Your task to perform on an android device: When is my next appointment? Image 0: 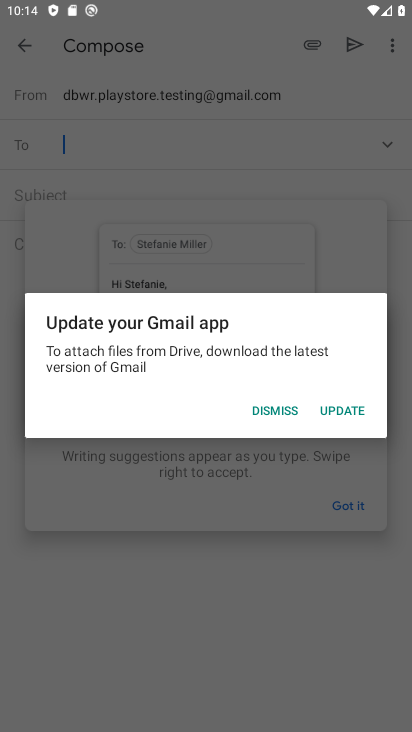
Step 0: press home button
Your task to perform on an android device: When is my next appointment? Image 1: 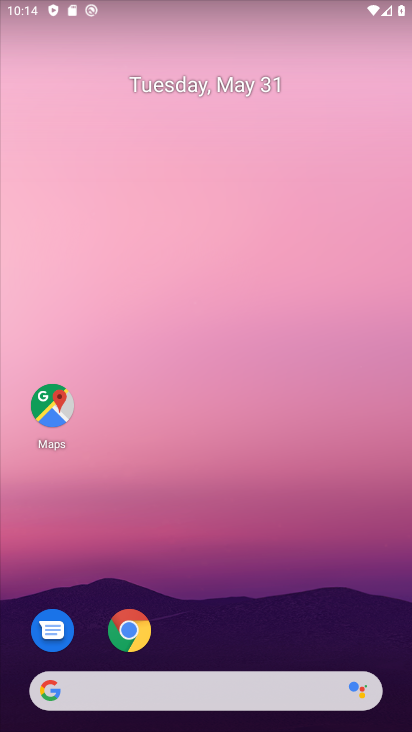
Step 1: drag from (247, 633) to (179, 245)
Your task to perform on an android device: When is my next appointment? Image 2: 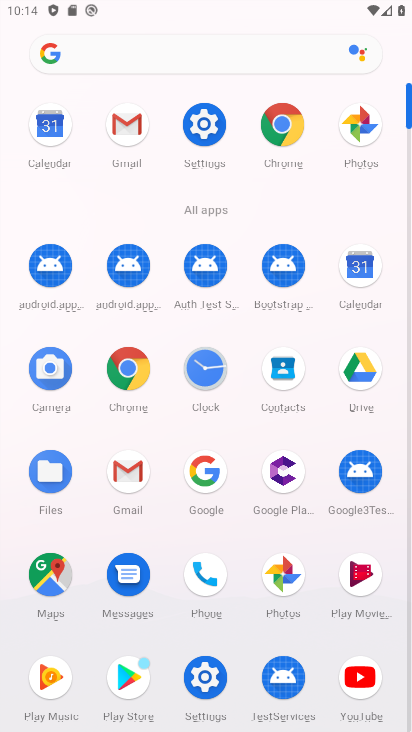
Step 2: click (364, 262)
Your task to perform on an android device: When is my next appointment? Image 3: 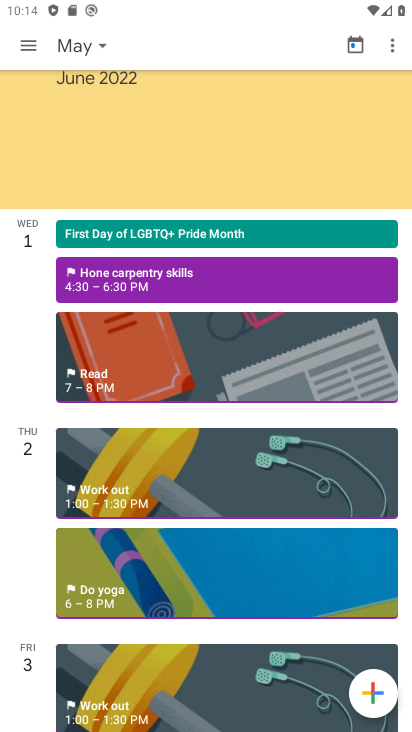
Step 3: click (29, 44)
Your task to perform on an android device: When is my next appointment? Image 4: 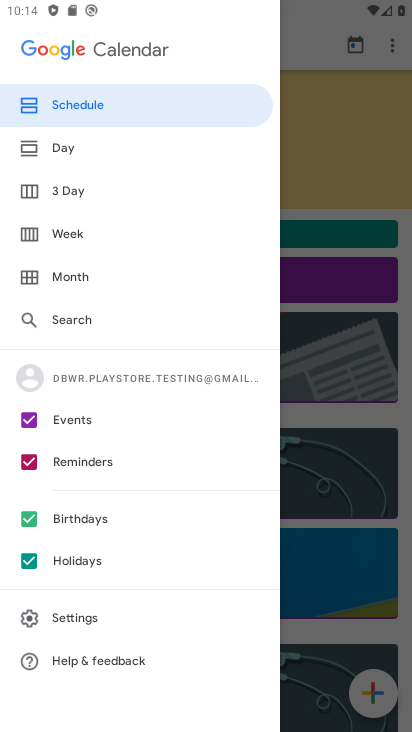
Step 4: click (122, 97)
Your task to perform on an android device: When is my next appointment? Image 5: 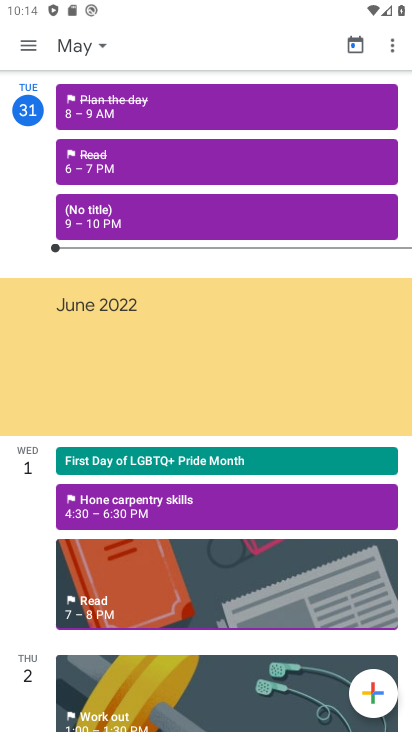
Step 5: task complete